Your task to perform on an android device: What is the news today? Image 0: 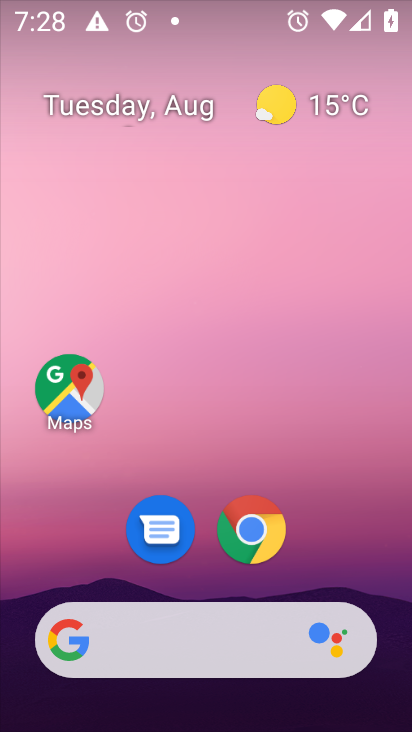
Step 0: click (55, 649)
Your task to perform on an android device: What is the news today? Image 1: 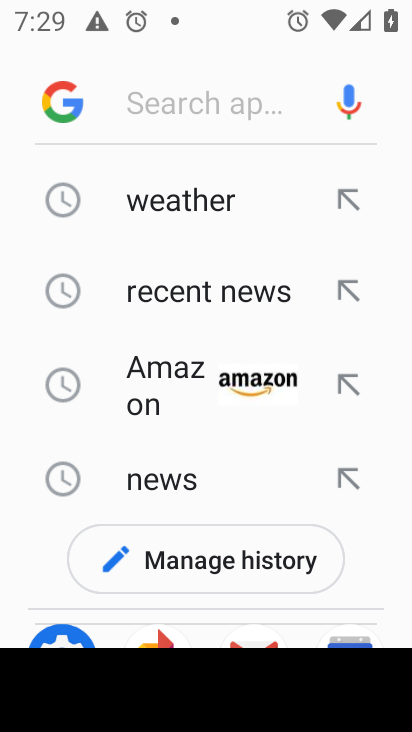
Step 1: type "news today?"
Your task to perform on an android device: What is the news today? Image 2: 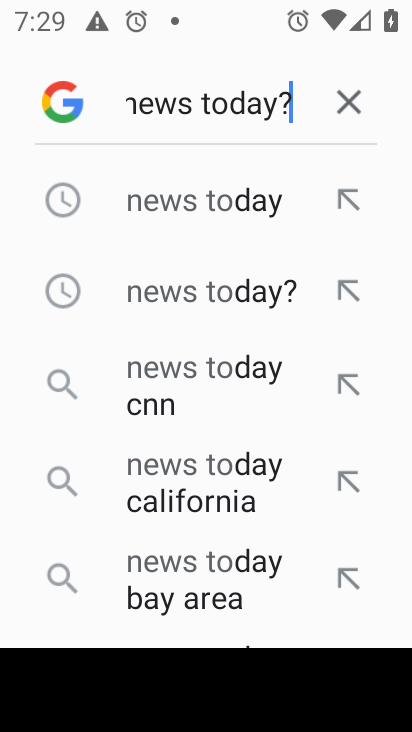
Step 2: press enter
Your task to perform on an android device: What is the news today? Image 3: 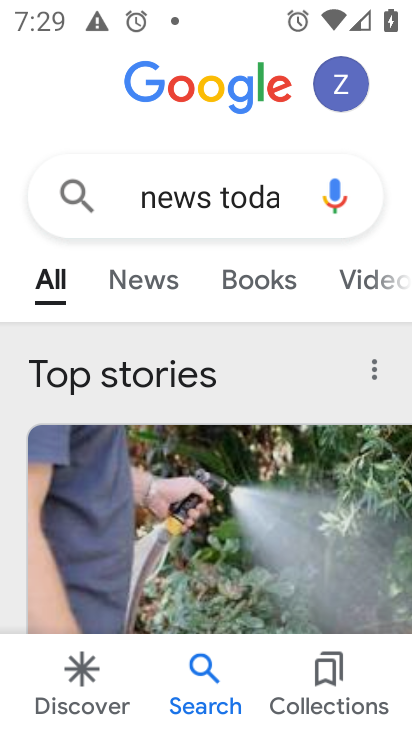
Step 3: task complete